Your task to perform on an android device: open chrome and create a bookmark for the current page Image 0: 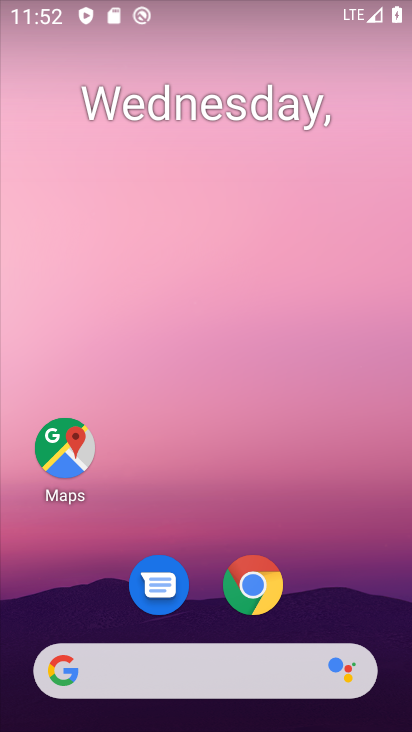
Step 0: click (266, 581)
Your task to perform on an android device: open chrome and create a bookmark for the current page Image 1: 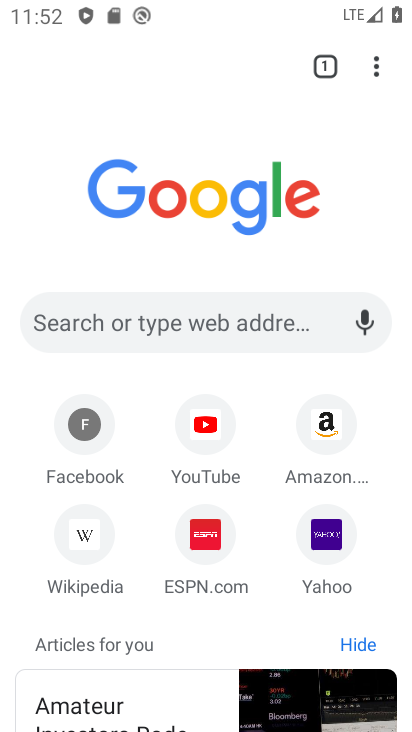
Step 1: click (373, 65)
Your task to perform on an android device: open chrome and create a bookmark for the current page Image 2: 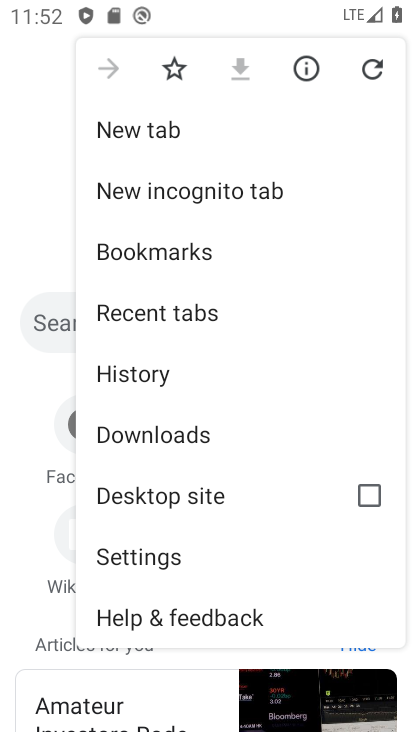
Step 2: click (174, 65)
Your task to perform on an android device: open chrome and create a bookmark for the current page Image 3: 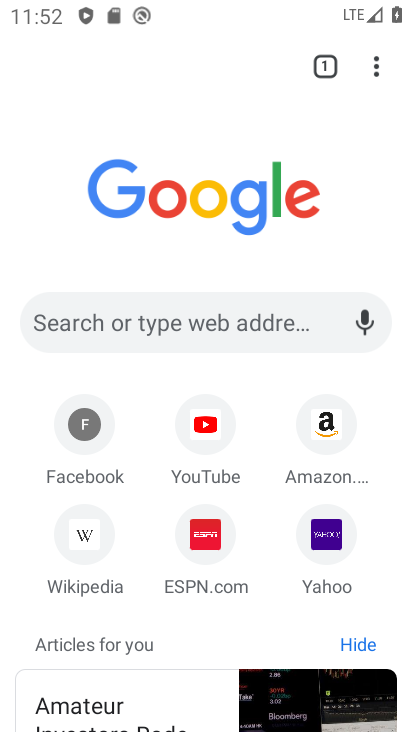
Step 3: task complete